Your task to perform on an android device: add a label to a message in the gmail app Image 0: 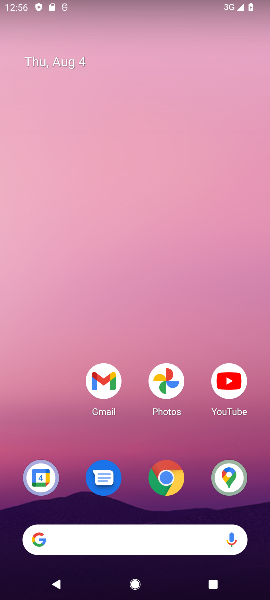
Step 0: press home button
Your task to perform on an android device: add a label to a message in the gmail app Image 1: 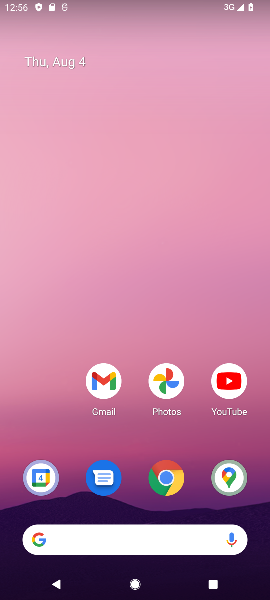
Step 1: drag from (96, 565) to (191, 153)
Your task to perform on an android device: add a label to a message in the gmail app Image 2: 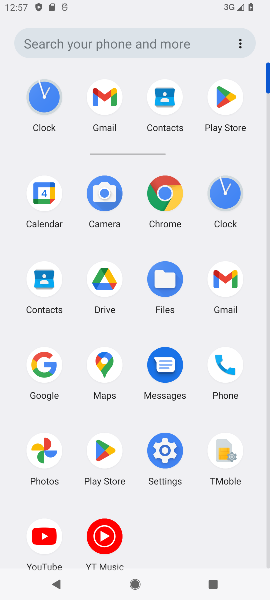
Step 2: click (238, 280)
Your task to perform on an android device: add a label to a message in the gmail app Image 3: 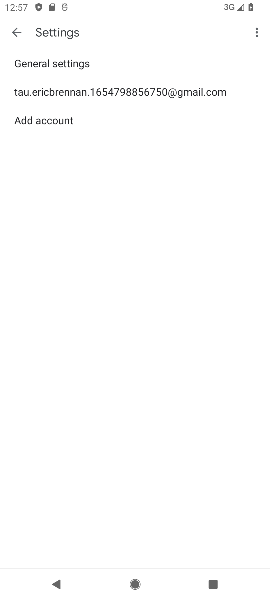
Step 3: click (8, 28)
Your task to perform on an android device: add a label to a message in the gmail app Image 4: 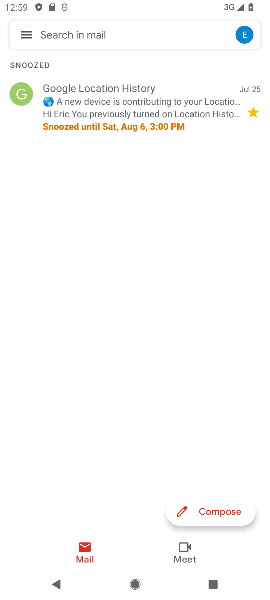
Step 4: task complete